Your task to perform on an android device: change notifications settings Image 0: 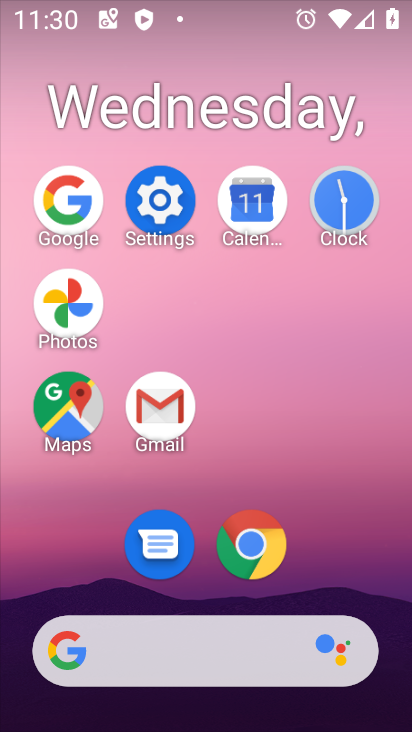
Step 0: click (153, 217)
Your task to perform on an android device: change notifications settings Image 1: 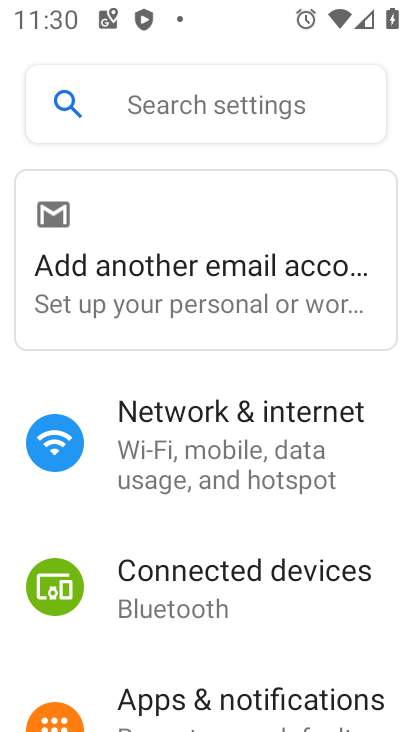
Step 1: drag from (255, 584) to (244, 290)
Your task to perform on an android device: change notifications settings Image 2: 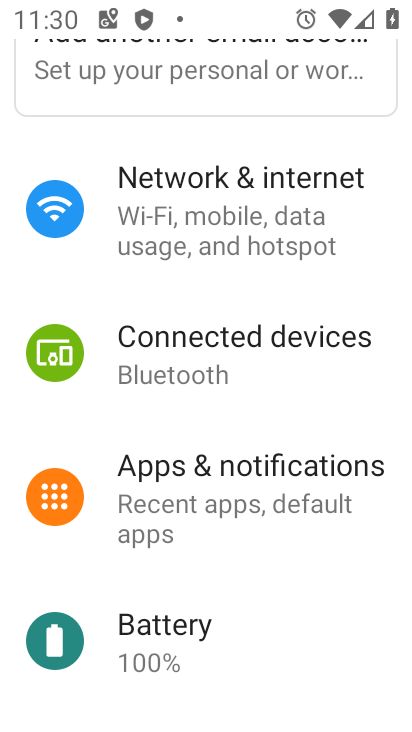
Step 2: click (263, 500)
Your task to perform on an android device: change notifications settings Image 3: 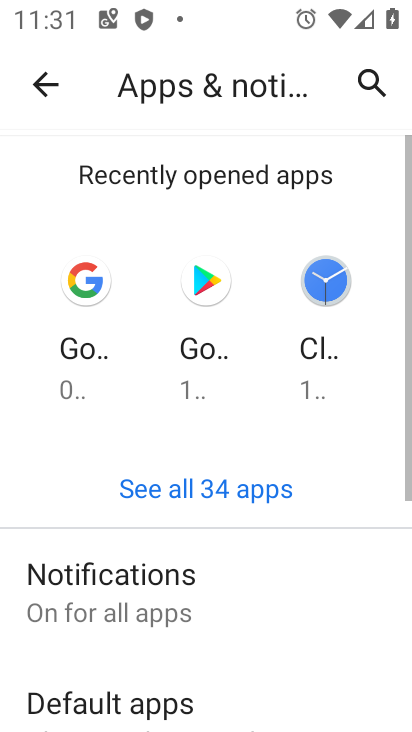
Step 3: task complete